Your task to perform on an android device: Show the shopping cart on amazon. Search for macbook pro 13 inch on amazon, select the first entry, add it to the cart, then select checkout. Image 0: 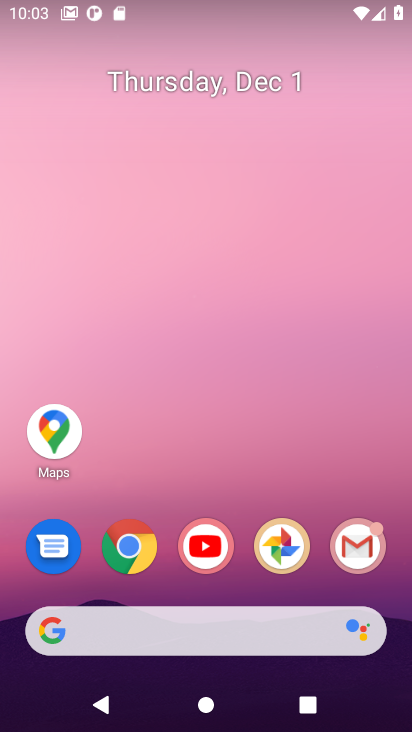
Step 0: click (127, 550)
Your task to perform on an android device: Show the shopping cart on amazon. Search for macbook pro 13 inch on amazon, select the first entry, add it to the cart, then select checkout. Image 1: 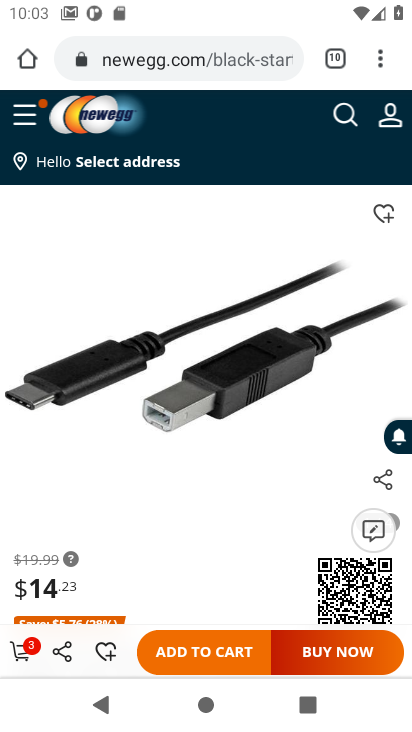
Step 1: click (194, 59)
Your task to perform on an android device: Show the shopping cart on amazon. Search for macbook pro 13 inch on amazon, select the first entry, add it to the cart, then select checkout. Image 2: 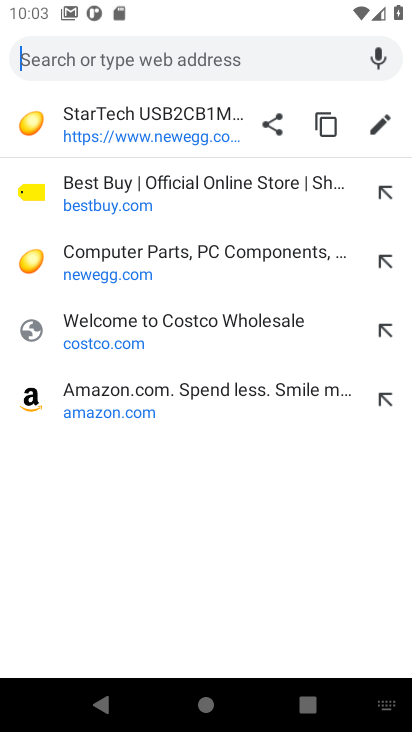
Step 2: click (103, 413)
Your task to perform on an android device: Show the shopping cart on amazon. Search for macbook pro 13 inch on amazon, select the first entry, add it to the cart, then select checkout. Image 3: 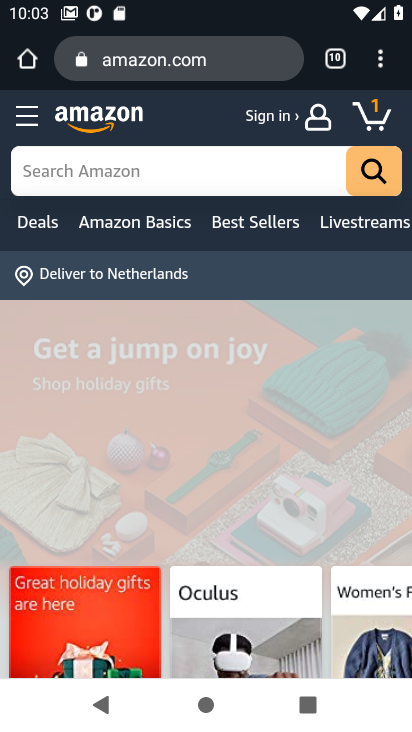
Step 3: click (367, 113)
Your task to perform on an android device: Show the shopping cart on amazon. Search for macbook pro 13 inch on amazon, select the first entry, add it to the cart, then select checkout. Image 4: 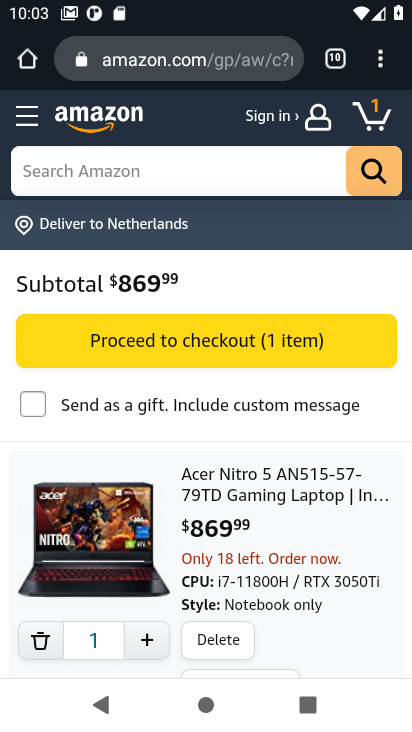
Step 4: click (187, 177)
Your task to perform on an android device: Show the shopping cart on amazon. Search for macbook pro 13 inch on amazon, select the first entry, add it to the cart, then select checkout. Image 5: 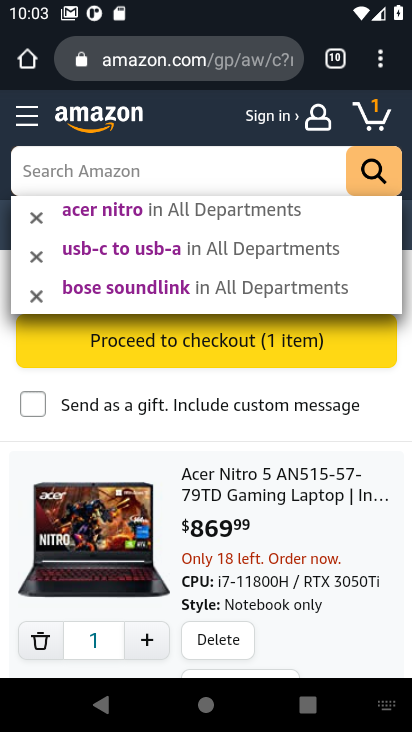
Step 5: type "macbook pro 13 inch"
Your task to perform on an android device: Show the shopping cart on amazon. Search for macbook pro 13 inch on amazon, select the first entry, add it to the cart, then select checkout. Image 6: 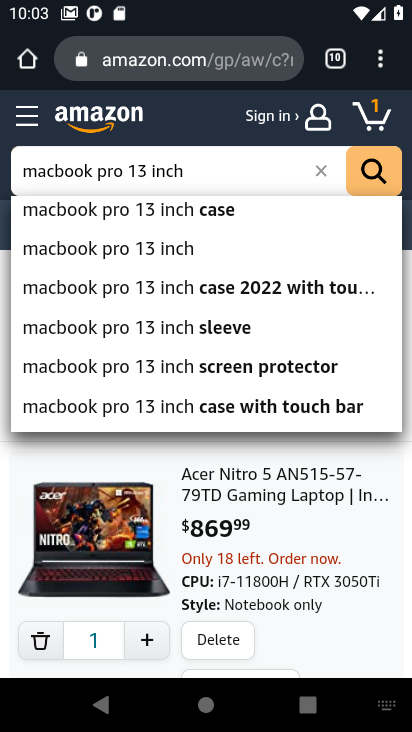
Step 6: click (114, 254)
Your task to perform on an android device: Show the shopping cart on amazon. Search for macbook pro 13 inch on amazon, select the first entry, add it to the cart, then select checkout. Image 7: 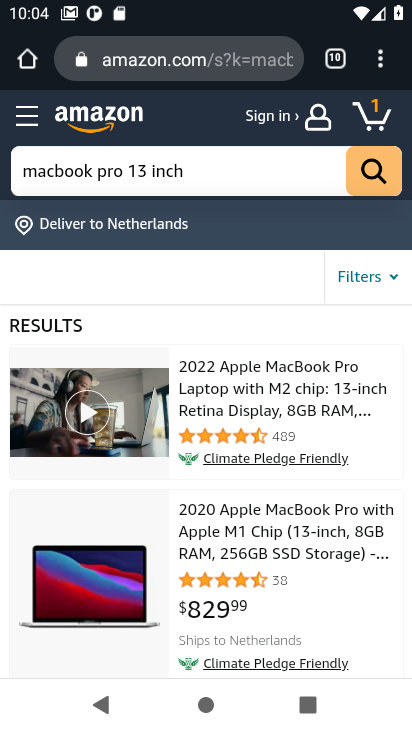
Step 7: click (290, 402)
Your task to perform on an android device: Show the shopping cart on amazon. Search for macbook pro 13 inch on amazon, select the first entry, add it to the cart, then select checkout. Image 8: 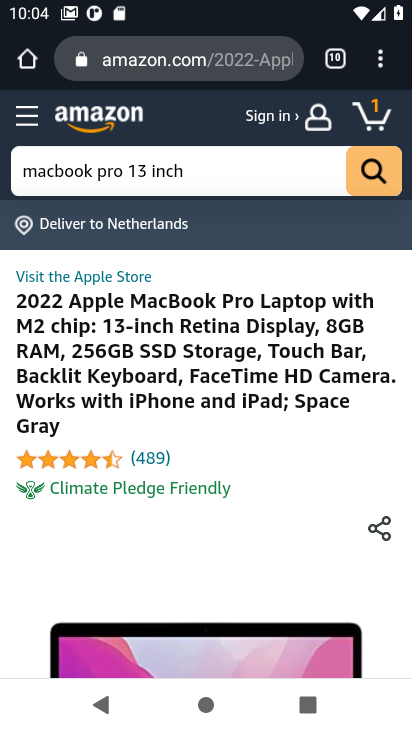
Step 8: task complete